Your task to perform on an android device: delete the emails in spam in the gmail app Image 0: 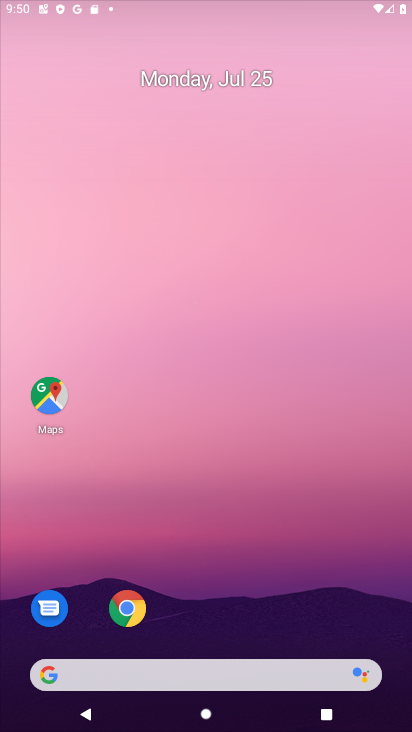
Step 0: drag from (167, 405) to (176, 198)
Your task to perform on an android device: delete the emails in spam in the gmail app Image 1: 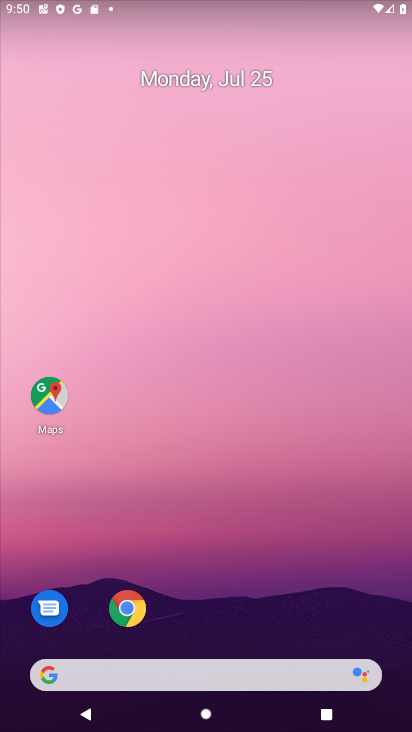
Step 1: drag from (141, 700) to (163, 199)
Your task to perform on an android device: delete the emails in spam in the gmail app Image 2: 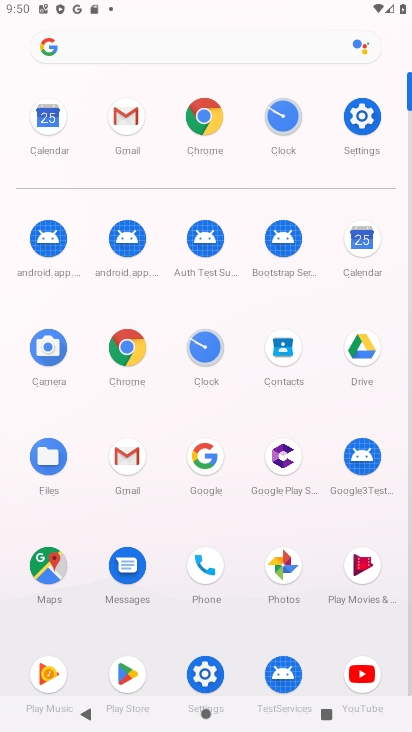
Step 2: click (110, 128)
Your task to perform on an android device: delete the emails in spam in the gmail app Image 3: 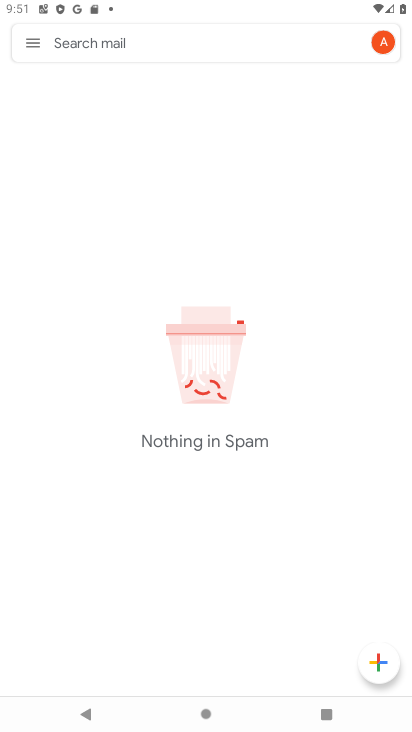
Step 3: task complete